Your task to perform on an android device: turn off priority inbox in the gmail app Image 0: 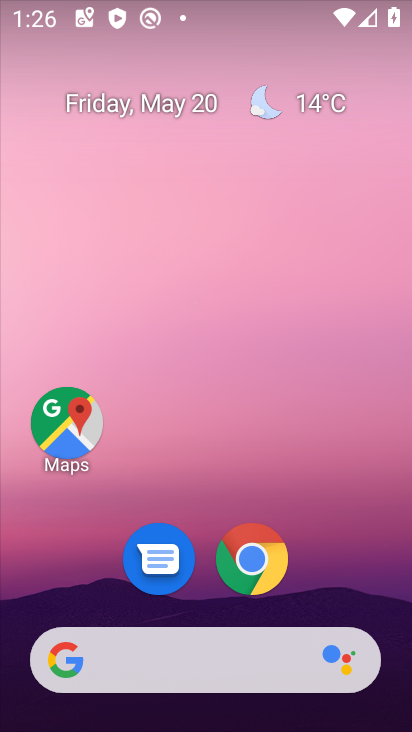
Step 0: drag from (321, 563) to (237, 47)
Your task to perform on an android device: turn off priority inbox in the gmail app Image 1: 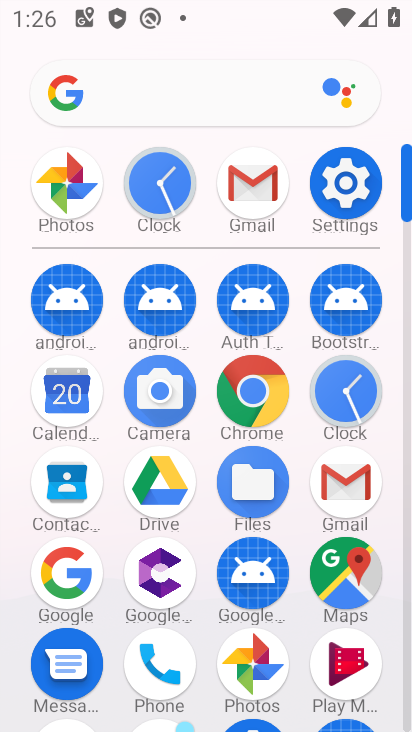
Step 1: click (267, 206)
Your task to perform on an android device: turn off priority inbox in the gmail app Image 2: 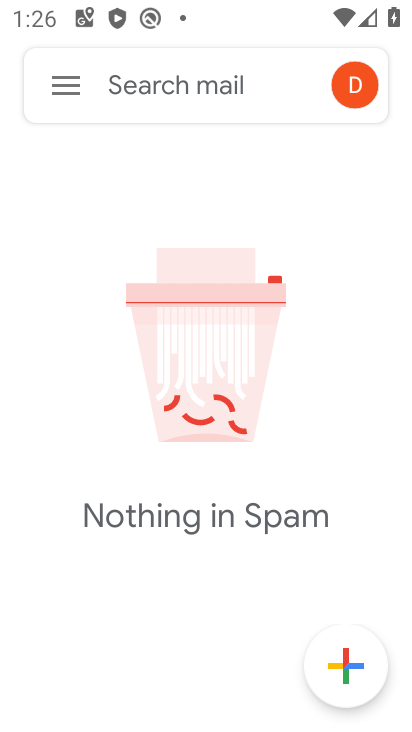
Step 2: click (77, 71)
Your task to perform on an android device: turn off priority inbox in the gmail app Image 3: 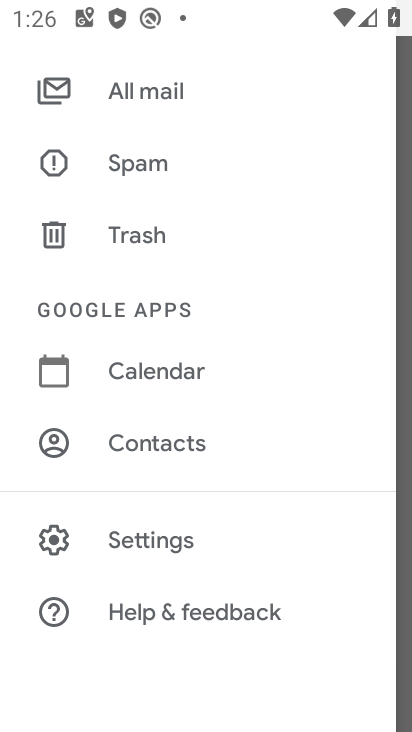
Step 3: click (152, 542)
Your task to perform on an android device: turn off priority inbox in the gmail app Image 4: 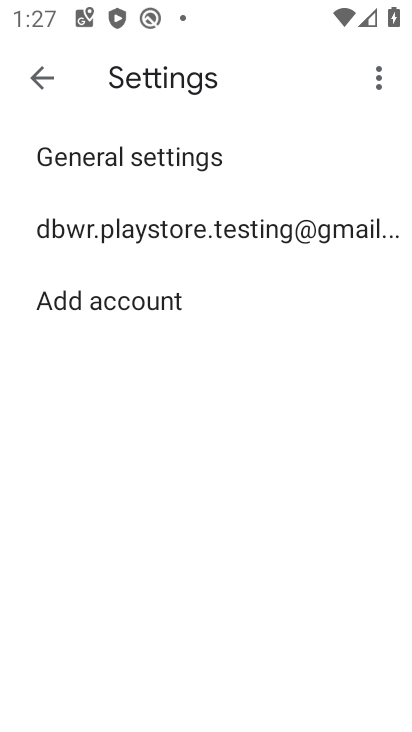
Step 4: click (169, 209)
Your task to perform on an android device: turn off priority inbox in the gmail app Image 5: 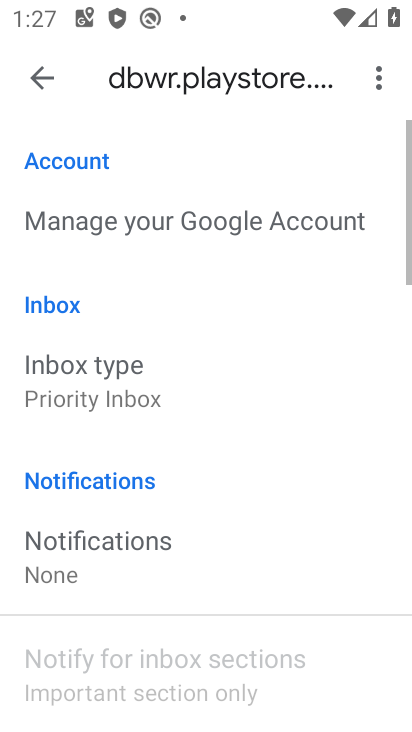
Step 5: drag from (155, 431) to (138, 330)
Your task to perform on an android device: turn off priority inbox in the gmail app Image 6: 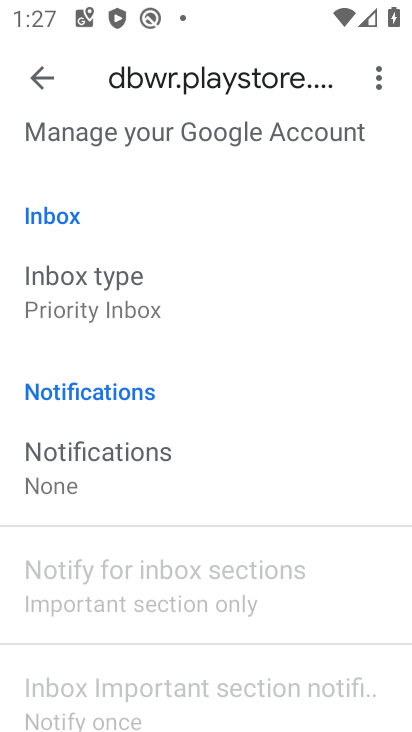
Step 6: click (138, 330)
Your task to perform on an android device: turn off priority inbox in the gmail app Image 7: 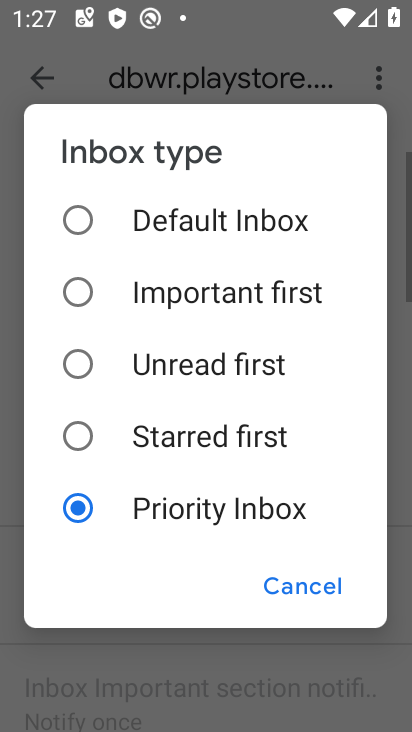
Step 7: click (142, 225)
Your task to perform on an android device: turn off priority inbox in the gmail app Image 8: 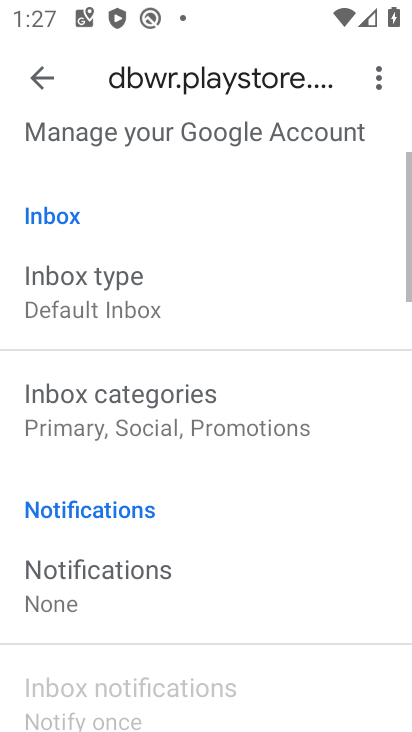
Step 8: task complete